Your task to perform on an android device: Clear the shopping cart on amazon.com. Add logitech g933 to the cart on amazon.com, then select checkout. Image 0: 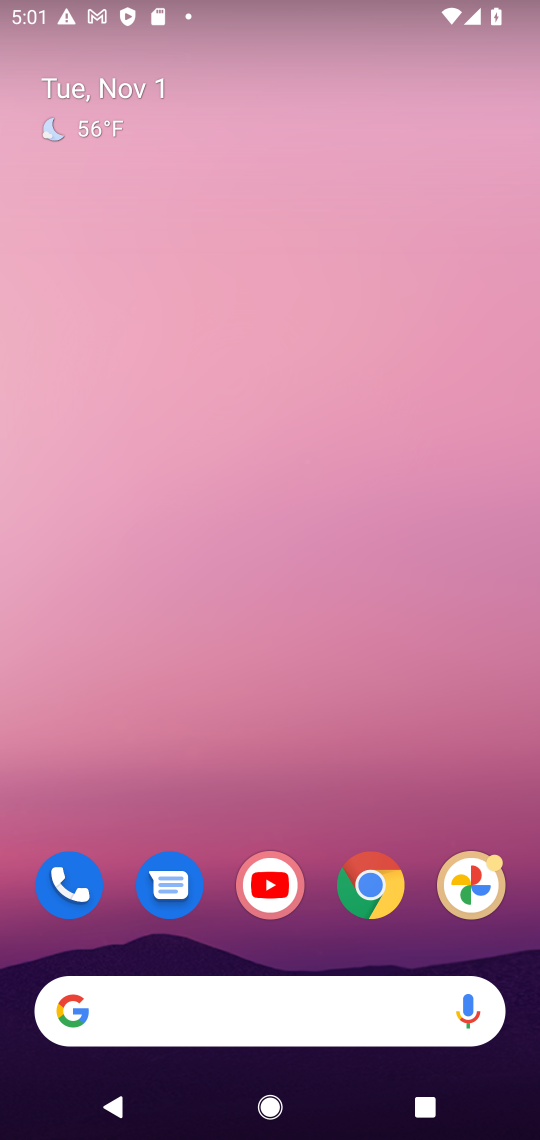
Step 0: click (368, 892)
Your task to perform on an android device: Clear the shopping cart on amazon.com. Add logitech g933 to the cart on amazon.com, then select checkout. Image 1: 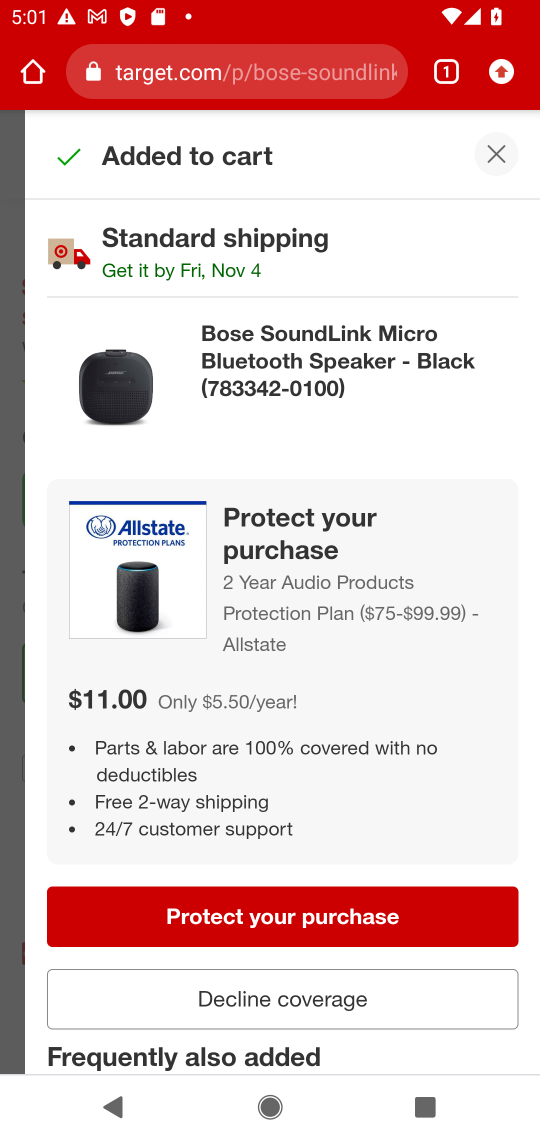
Step 1: click (254, 44)
Your task to perform on an android device: Clear the shopping cart on amazon.com. Add logitech g933 to the cart on amazon.com, then select checkout. Image 2: 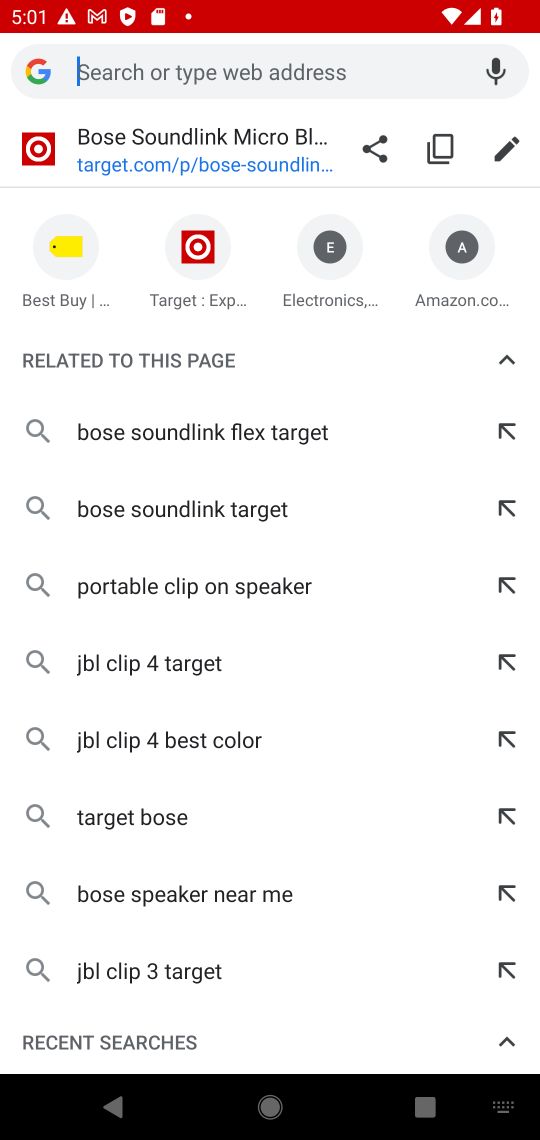
Step 2: click (465, 256)
Your task to perform on an android device: Clear the shopping cart on amazon.com. Add logitech g933 to the cart on amazon.com, then select checkout. Image 3: 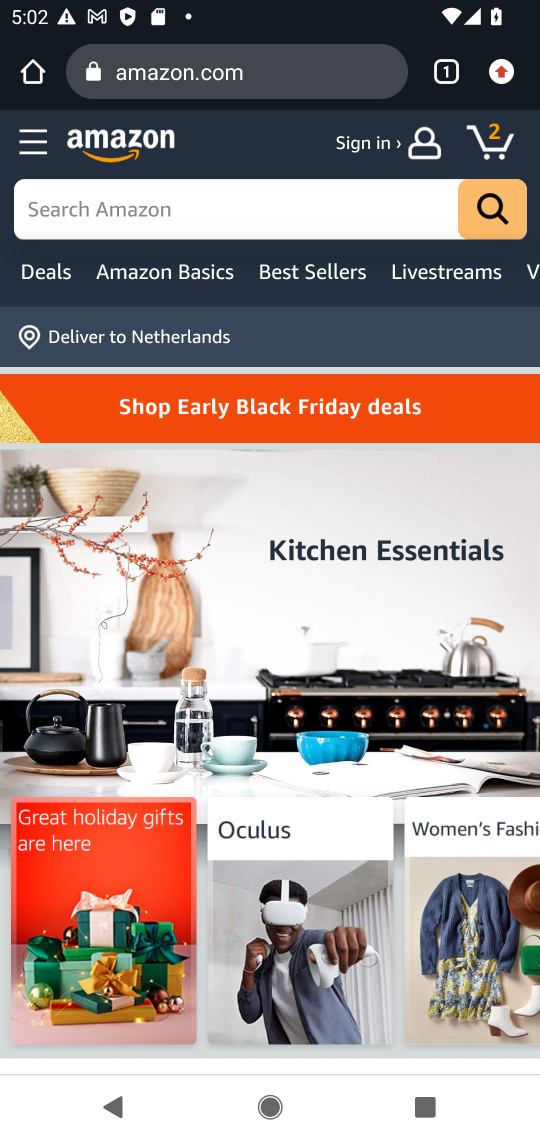
Step 3: click (491, 135)
Your task to perform on an android device: Clear the shopping cart on amazon.com. Add logitech g933 to the cart on amazon.com, then select checkout. Image 4: 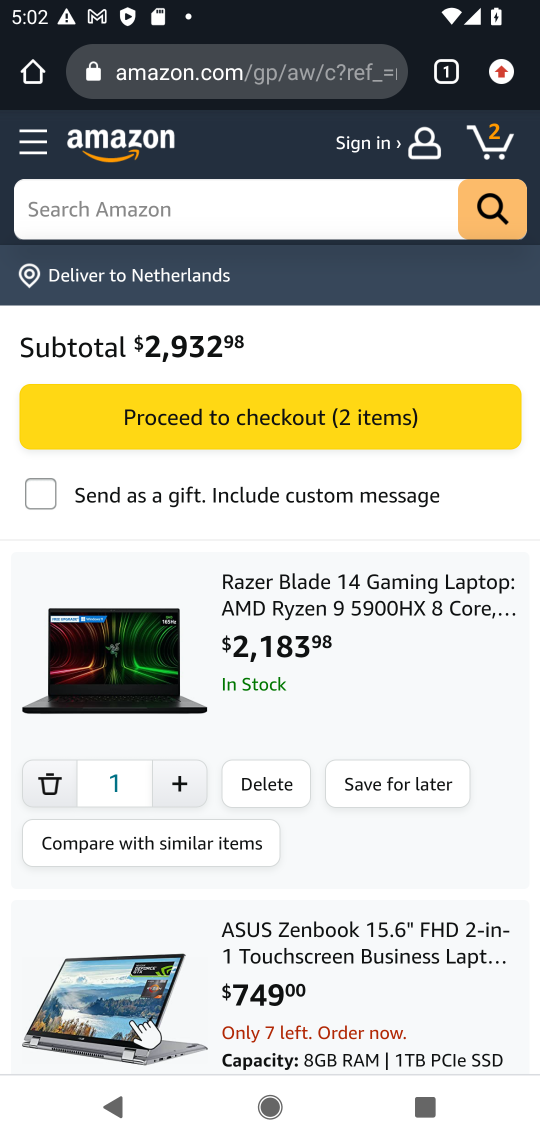
Step 4: click (45, 780)
Your task to perform on an android device: Clear the shopping cart on amazon.com. Add logitech g933 to the cart on amazon.com, then select checkout. Image 5: 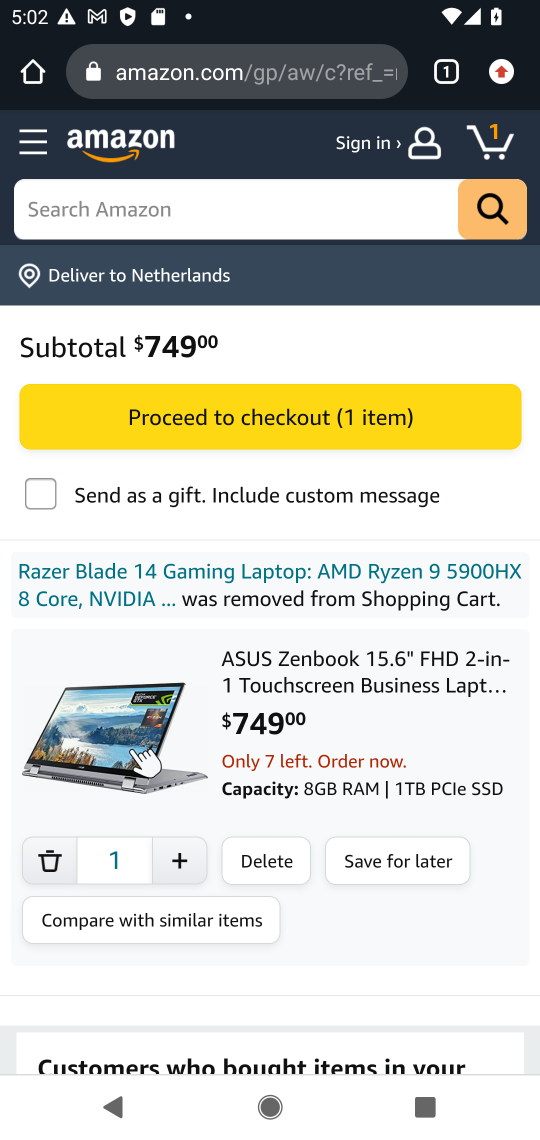
Step 5: click (42, 865)
Your task to perform on an android device: Clear the shopping cart on amazon.com. Add logitech g933 to the cart on amazon.com, then select checkout. Image 6: 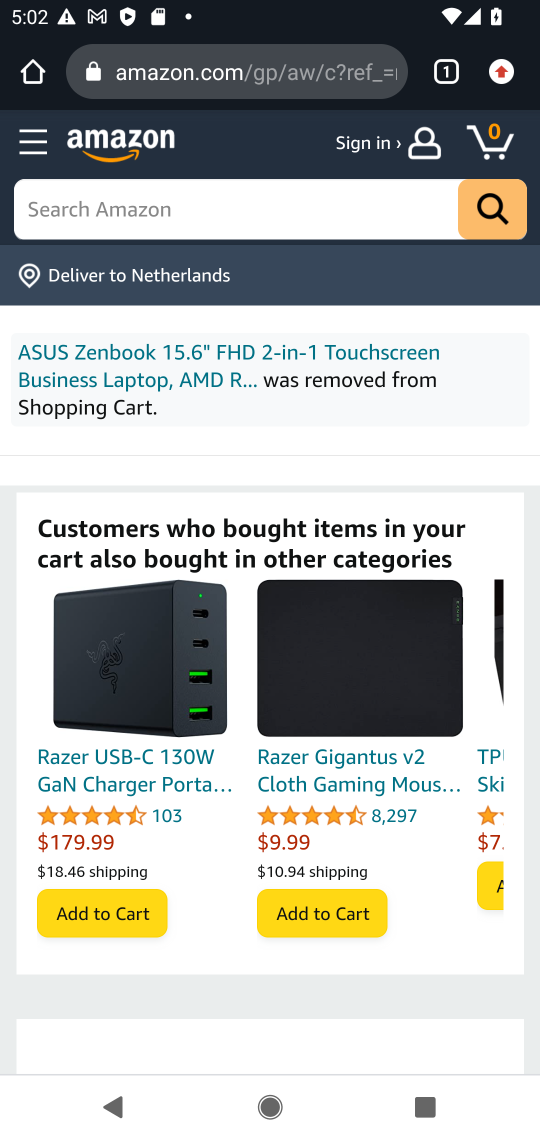
Step 6: click (96, 202)
Your task to perform on an android device: Clear the shopping cart on amazon.com. Add logitech g933 to the cart on amazon.com, then select checkout. Image 7: 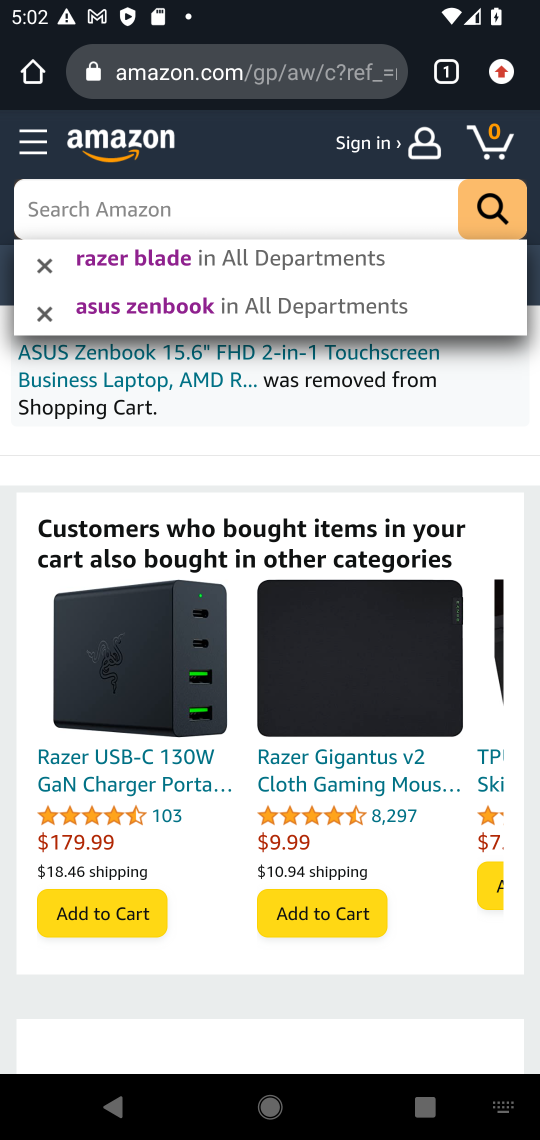
Step 7: type "logitech g933"
Your task to perform on an android device: Clear the shopping cart on amazon.com. Add logitech g933 to the cart on amazon.com, then select checkout. Image 8: 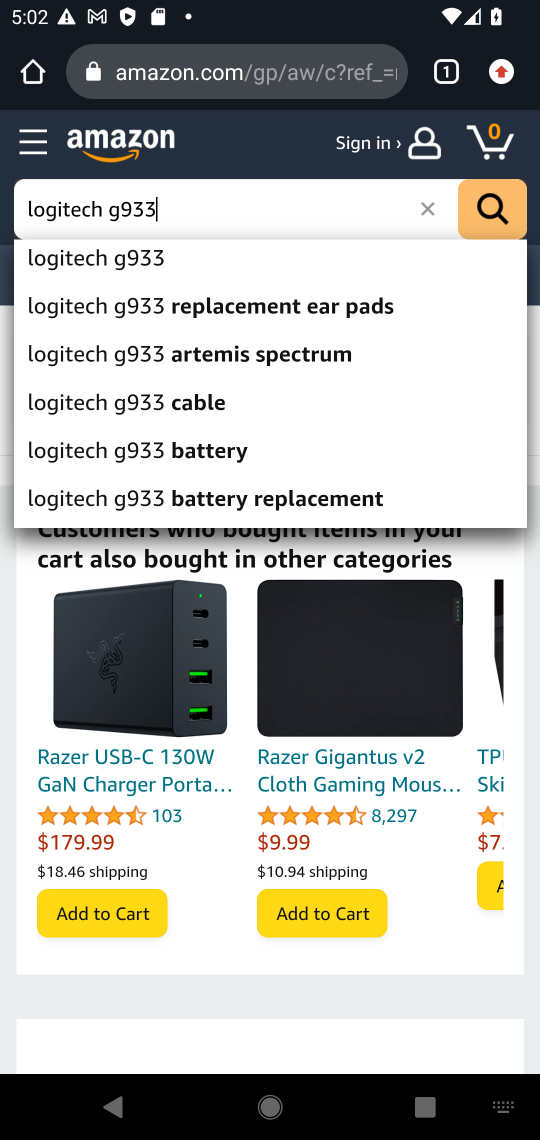
Step 8: click (77, 249)
Your task to perform on an android device: Clear the shopping cart on amazon.com. Add logitech g933 to the cart on amazon.com, then select checkout. Image 9: 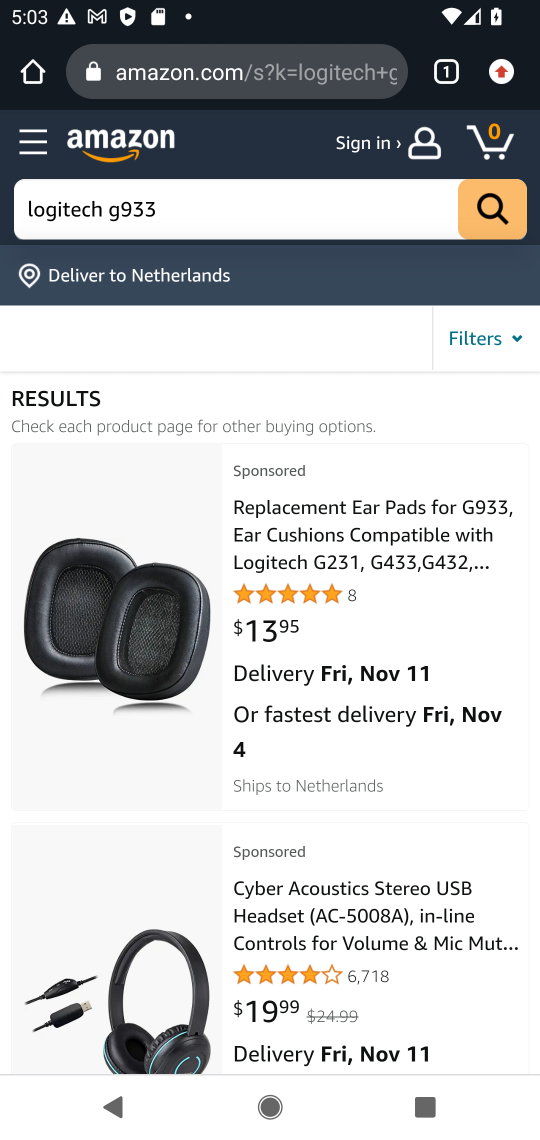
Step 9: click (489, 205)
Your task to perform on an android device: Clear the shopping cart on amazon.com. Add logitech g933 to the cart on amazon.com, then select checkout. Image 10: 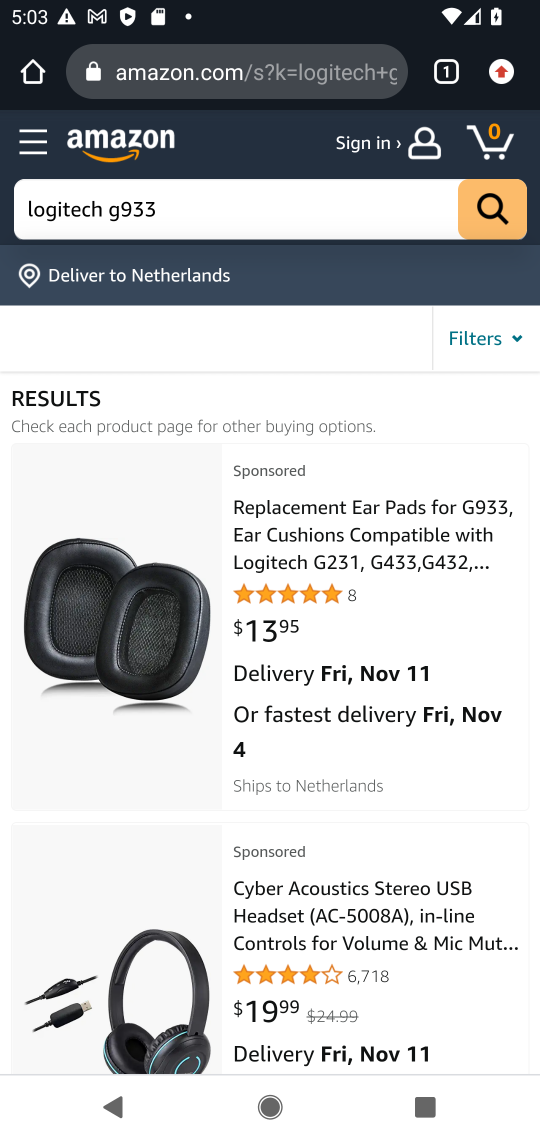
Step 10: drag from (236, 817) to (289, 506)
Your task to perform on an android device: Clear the shopping cart on amazon.com. Add logitech g933 to the cart on amazon.com, then select checkout. Image 11: 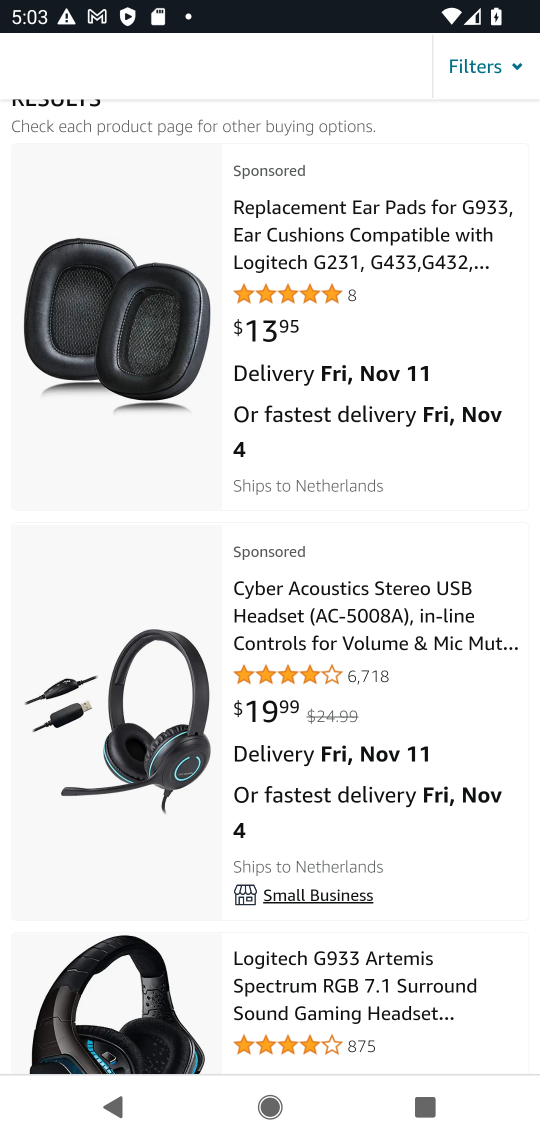
Step 11: click (304, 983)
Your task to perform on an android device: Clear the shopping cart on amazon.com. Add logitech g933 to the cart on amazon.com, then select checkout. Image 12: 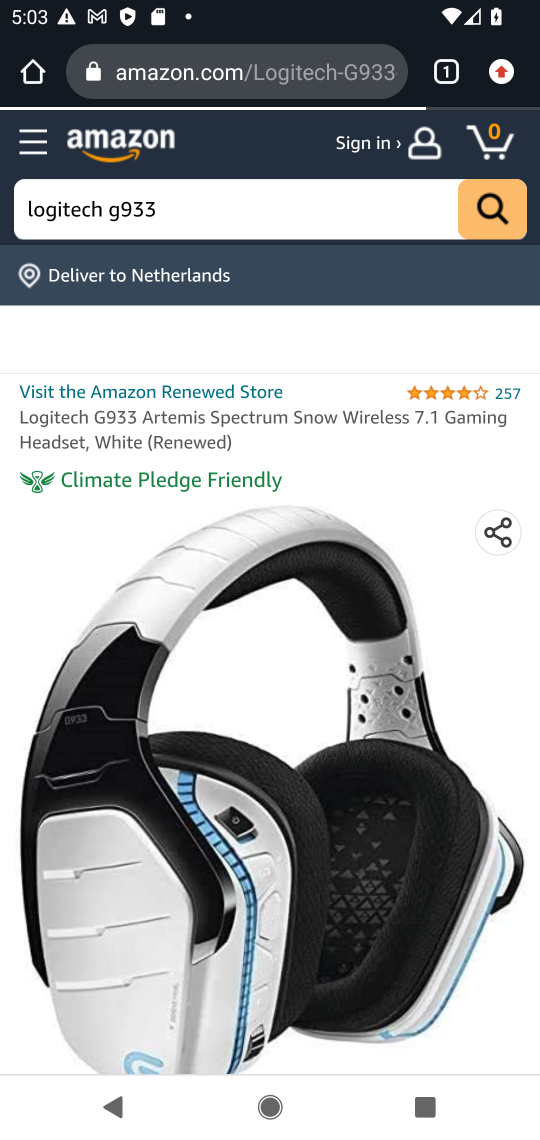
Step 12: task complete